Your task to perform on an android device: turn on improve location accuracy Image 0: 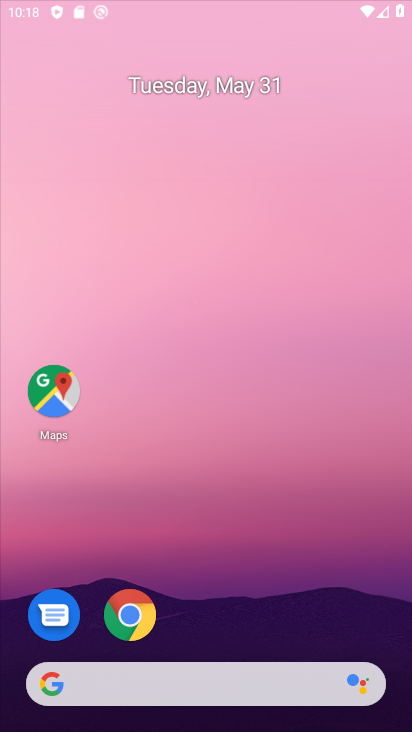
Step 0: click (278, 109)
Your task to perform on an android device: turn on improve location accuracy Image 1: 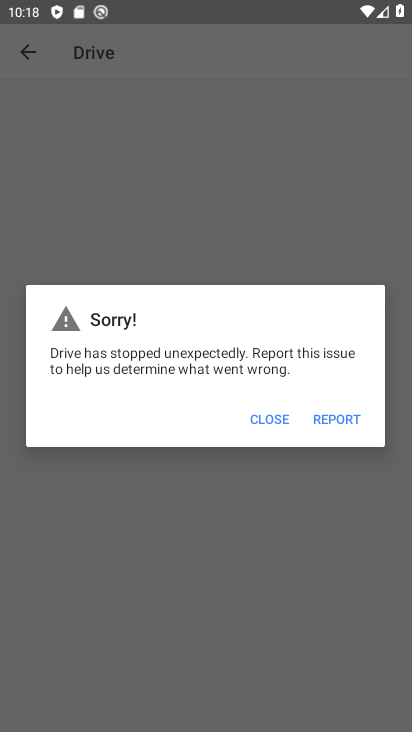
Step 1: press home button
Your task to perform on an android device: turn on improve location accuracy Image 2: 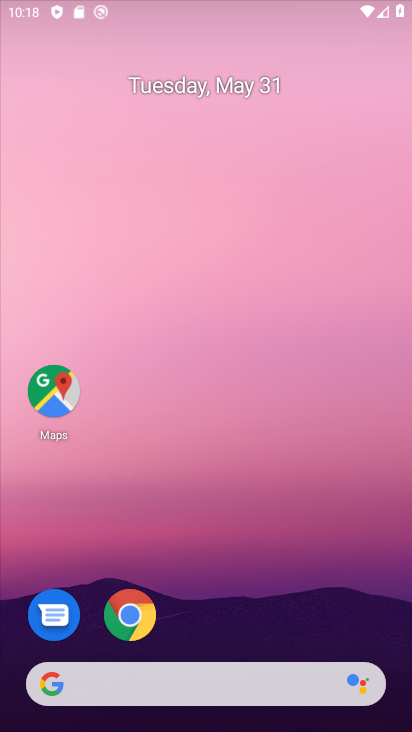
Step 2: drag from (330, 601) to (320, 197)
Your task to perform on an android device: turn on improve location accuracy Image 3: 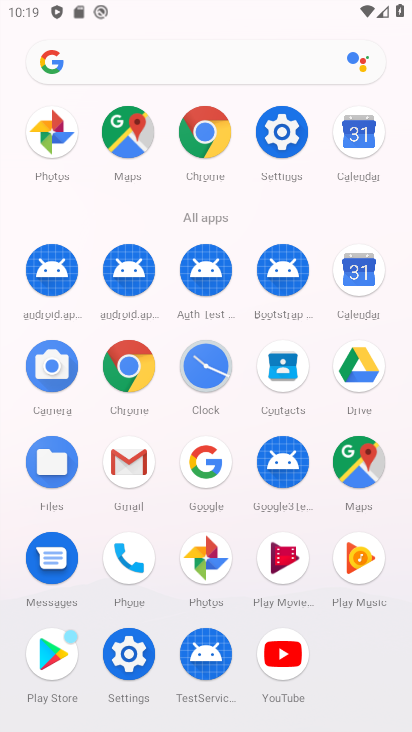
Step 3: click (117, 647)
Your task to perform on an android device: turn on improve location accuracy Image 4: 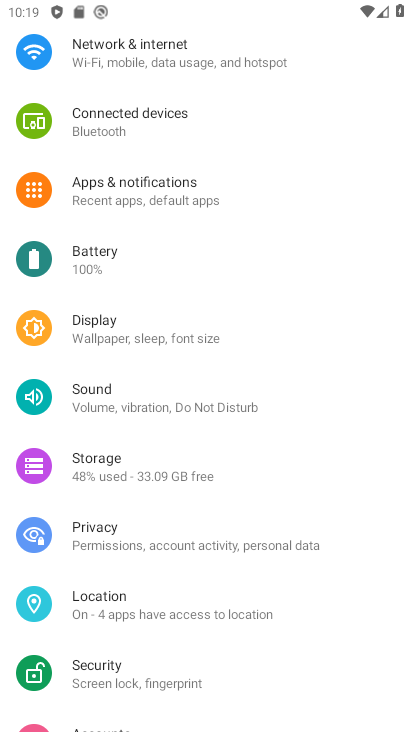
Step 4: click (142, 603)
Your task to perform on an android device: turn on improve location accuracy Image 5: 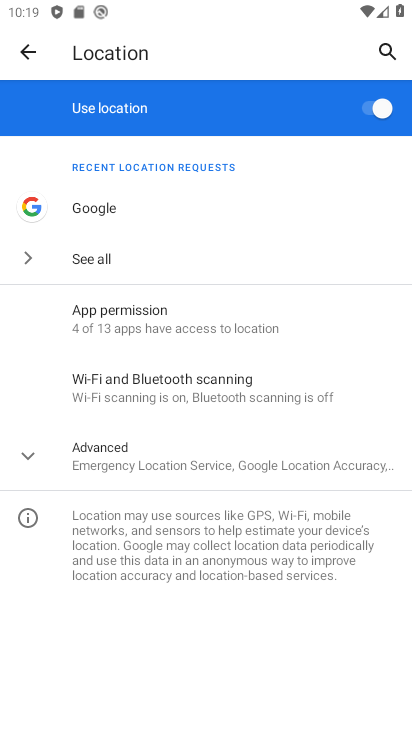
Step 5: click (216, 465)
Your task to perform on an android device: turn on improve location accuracy Image 6: 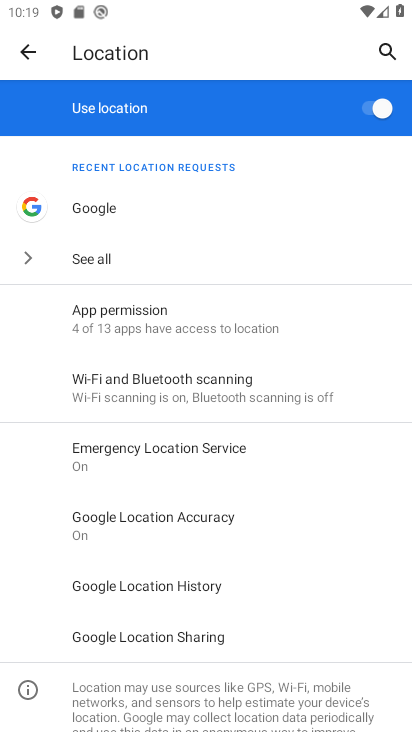
Step 6: task complete